Your task to perform on an android device: Go to eBay Image 0: 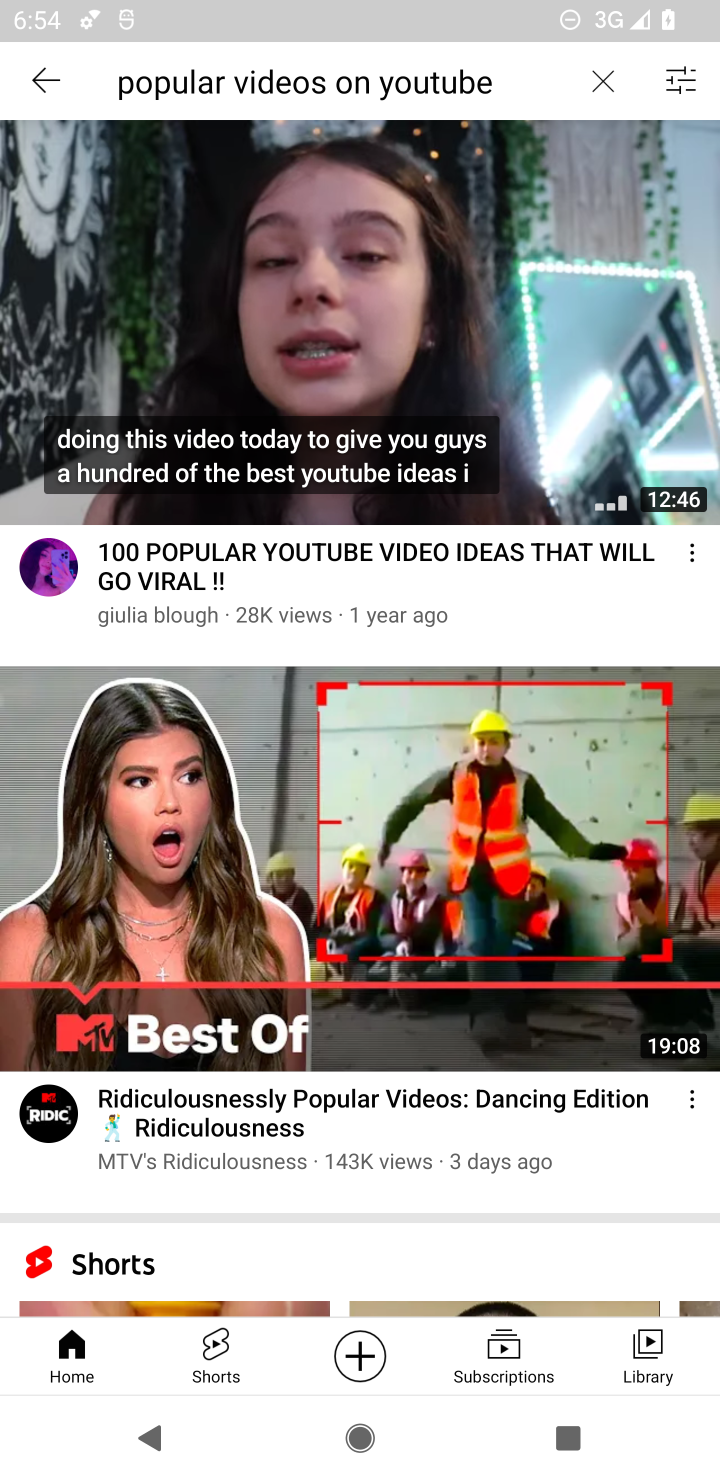
Step 0: press home button
Your task to perform on an android device: Go to eBay Image 1: 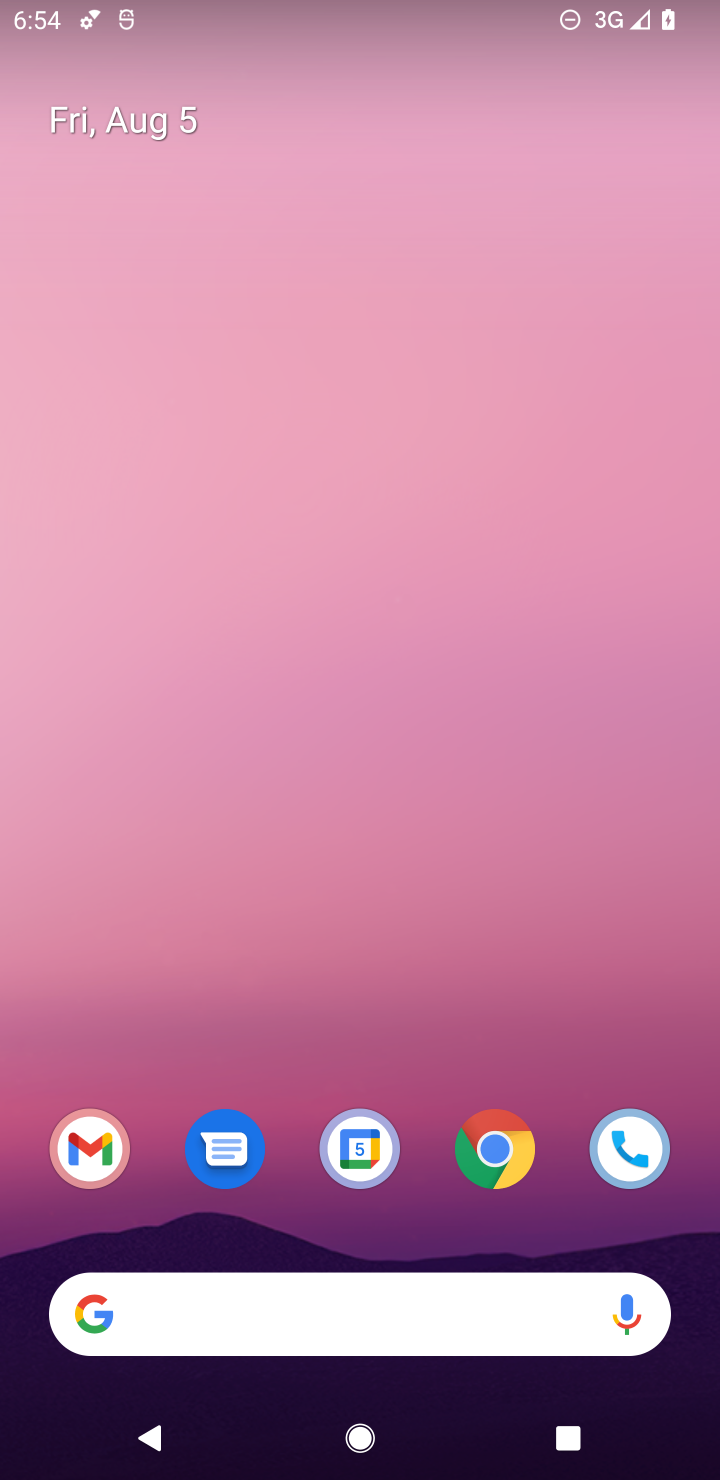
Step 1: click (480, 1159)
Your task to perform on an android device: Go to eBay Image 2: 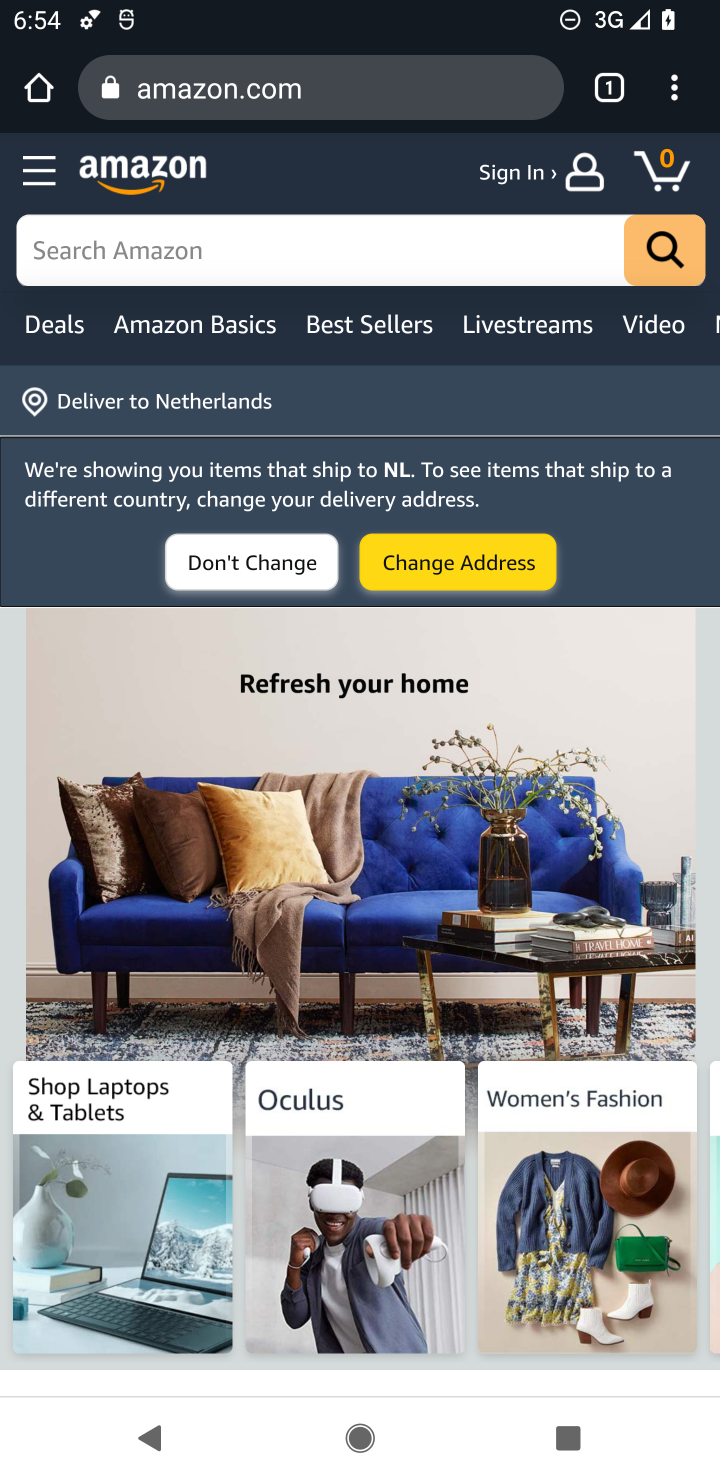
Step 2: click (599, 96)
Your task to perform on an android device: Go to eBay Image 3: 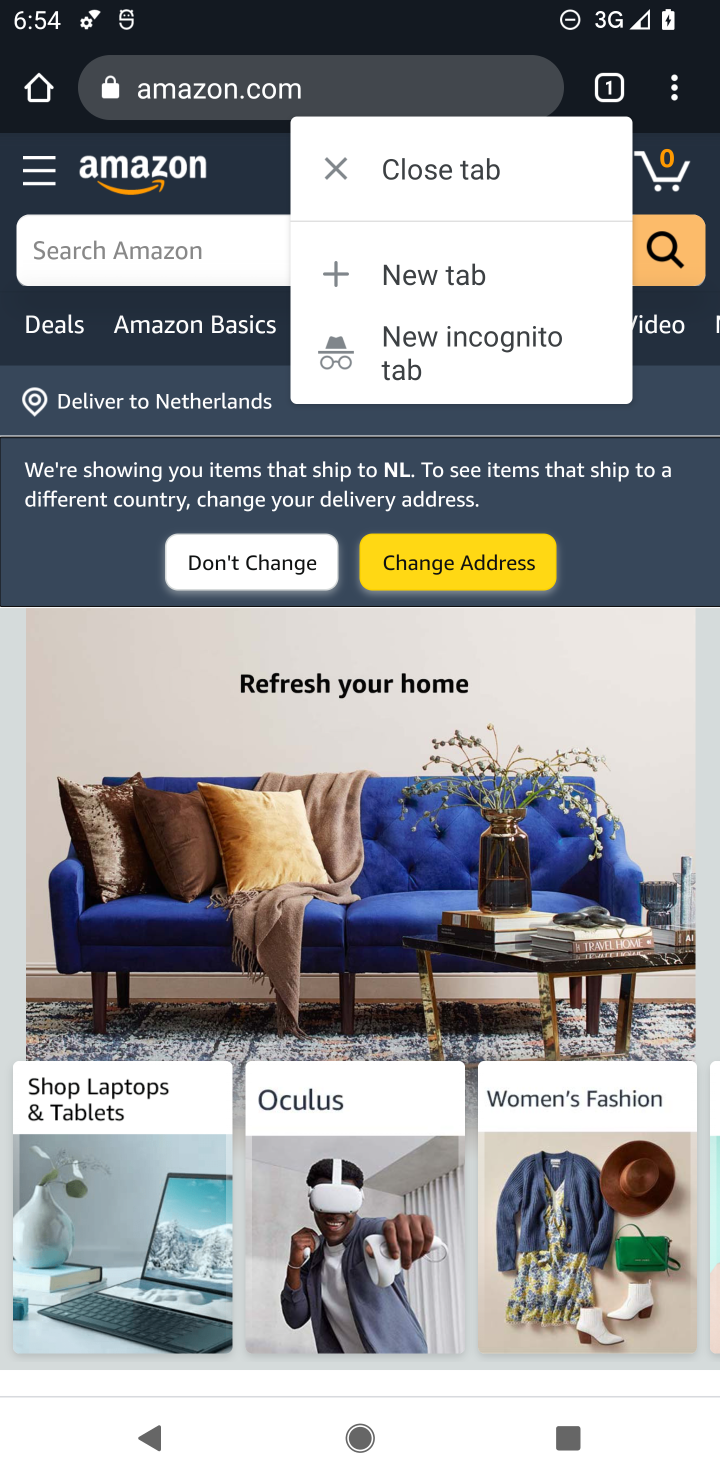
Step 3: click (422, 284)
Your task to perform on an android device: Go to eBay Image 4: 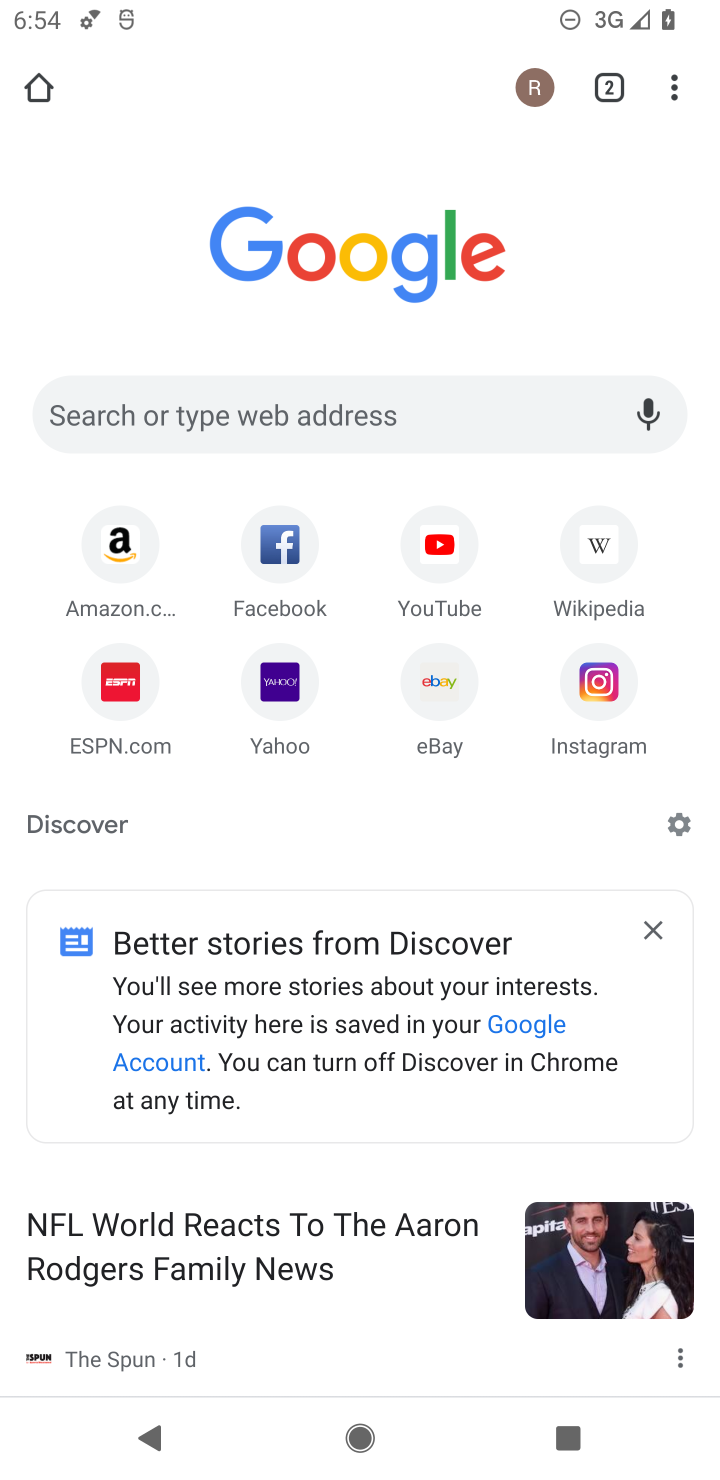
Step 4: click (434, 676)
Your task to perform on an android device: Go to eBay Image 5: 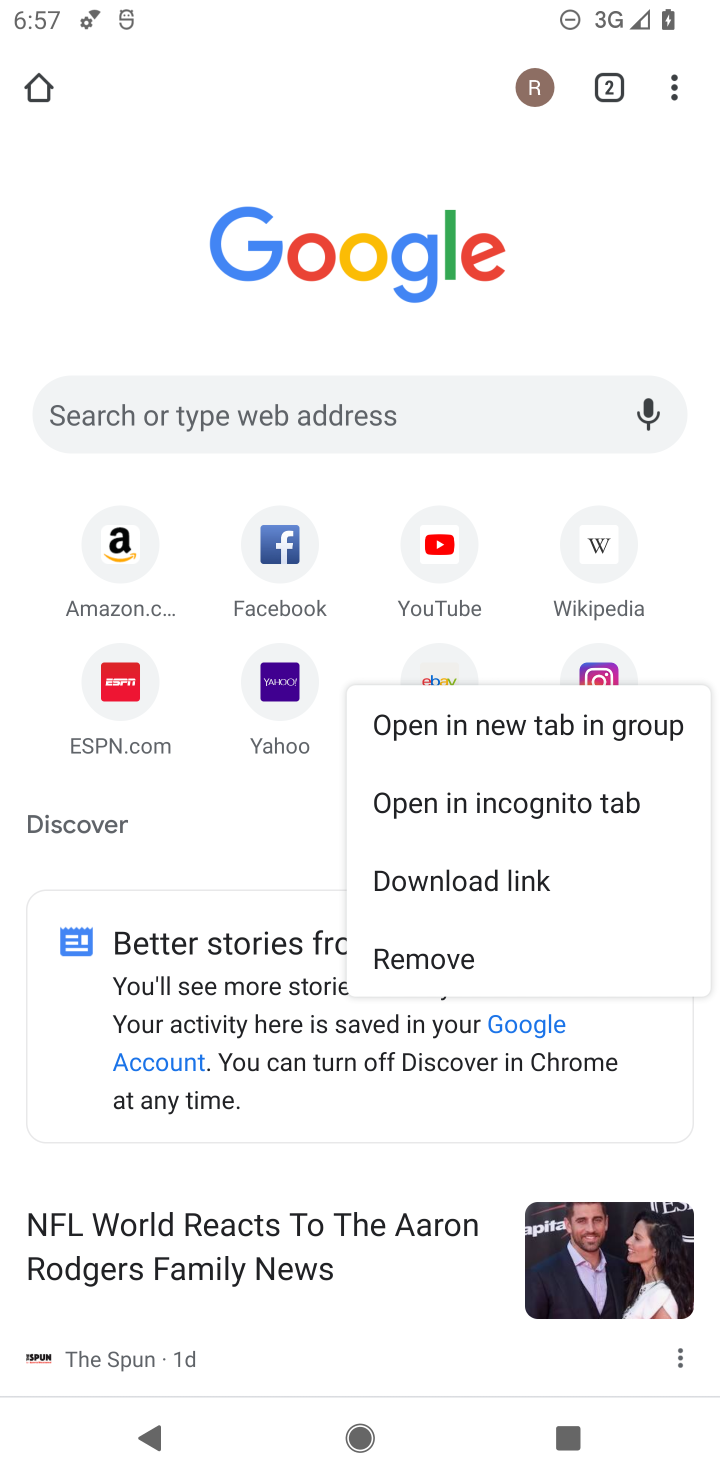
Step 5: task complete